Your task to perform on an android device: open chrome privacy settings Image 0: 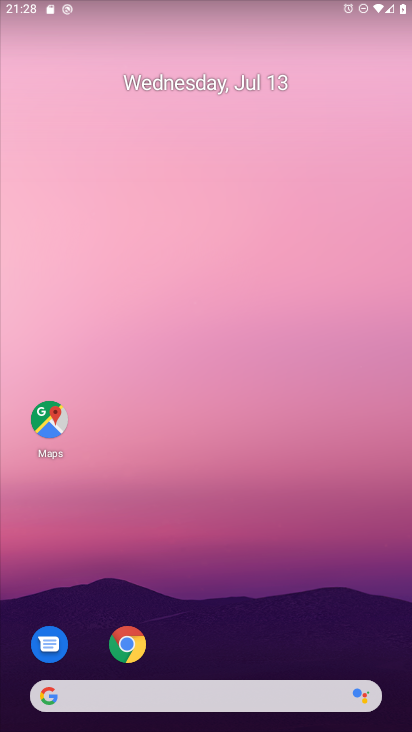
Step 0: press home button
Your task to perform on an android device: open chrome privacy settings Image 1: 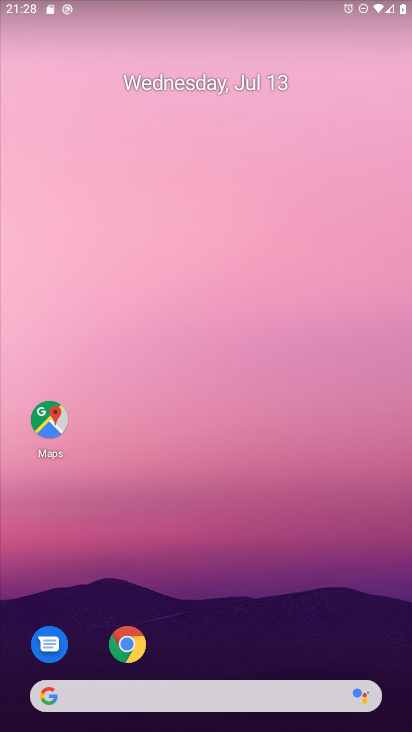
Step 1: click (134, 639)
Your task to perform on an android device: open chrome privacy settings Image 2: 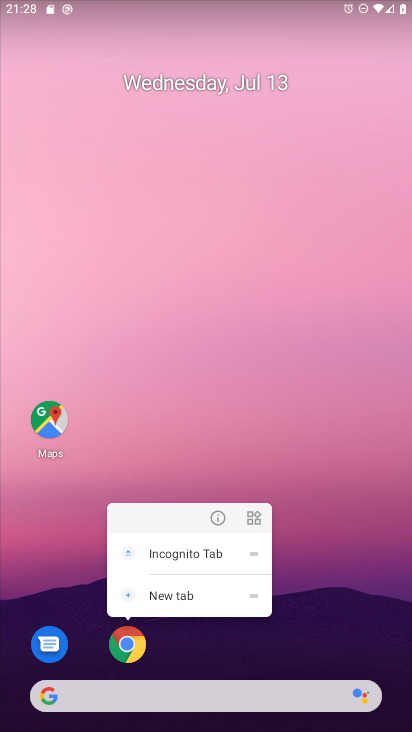
Step 2: click (134, 639)
Your task to perform on an android device: open chrome privacy settings Image 3: 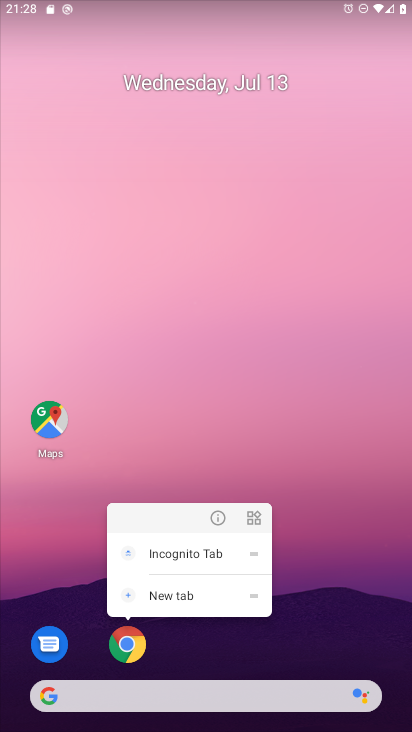
Step 3: click (134, 639)
Your task to perform on an android device: open chrome privacy settings Image 4: 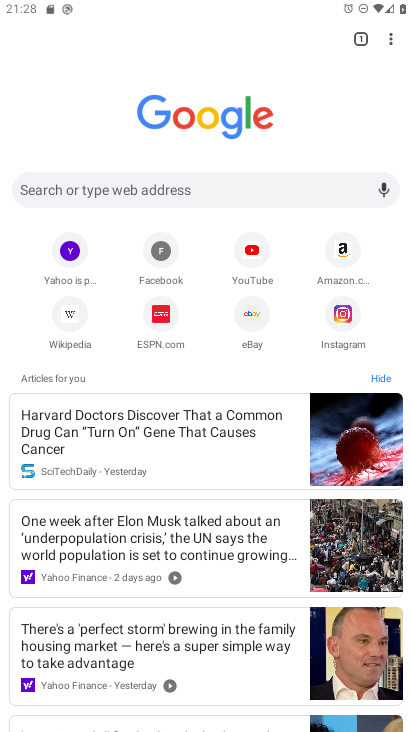
Step 4: drag from (394, 38) to (262, 331)
Your task to perform on an android device: open chrome privacy settings Image 5: 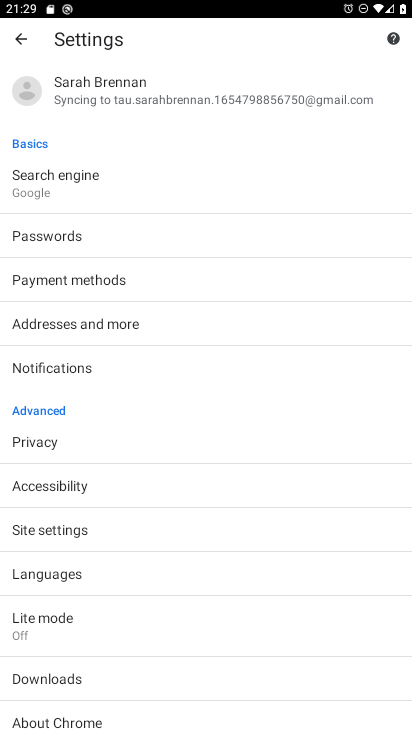
Step 5: click (29, 440)
Your task to perform on an android device: open chrome privacy settings Image 6: 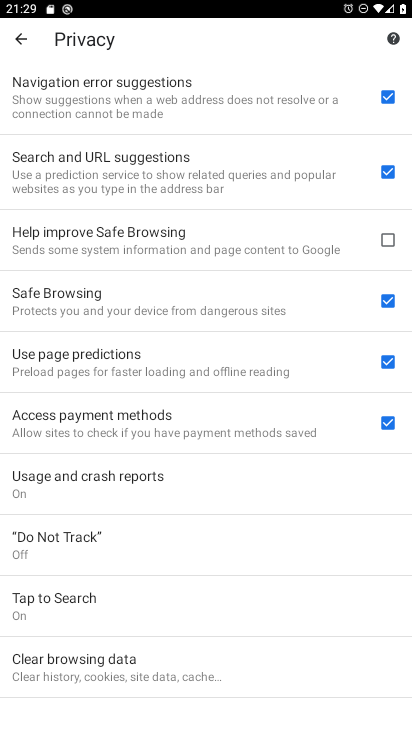
Step 6: task complete